Your task to perform on an android device: change text size in settings app Image 0: 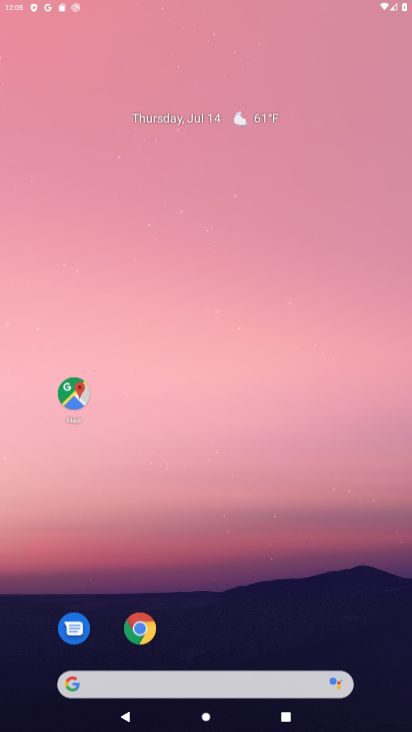
Step 0: click (118, 79)
Your task to perform on an android device: change text size in settings app Image 1: 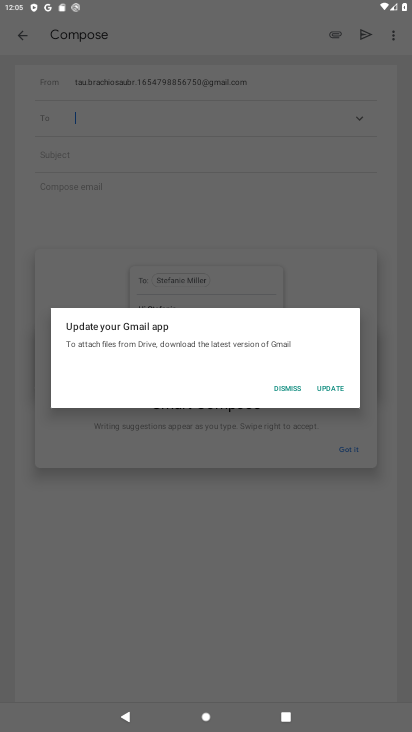
Step 1: press home button
Your task to perform on an android device: change text size in settings app Image 2: 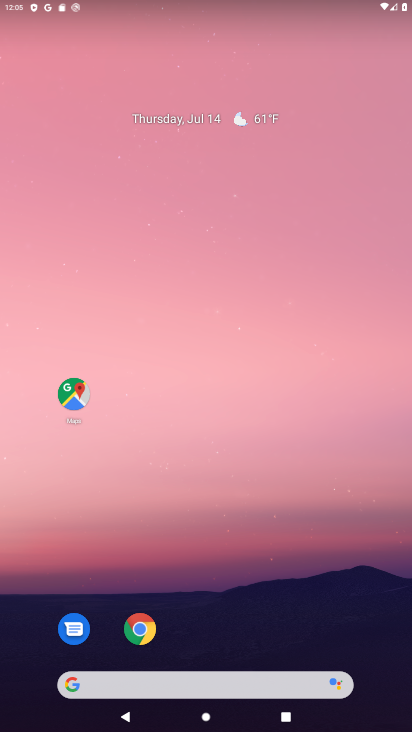
Step 2: drag from (227, 474) to (183, 113)
Your task to perform on an android device: change text size in settings app Image 3: 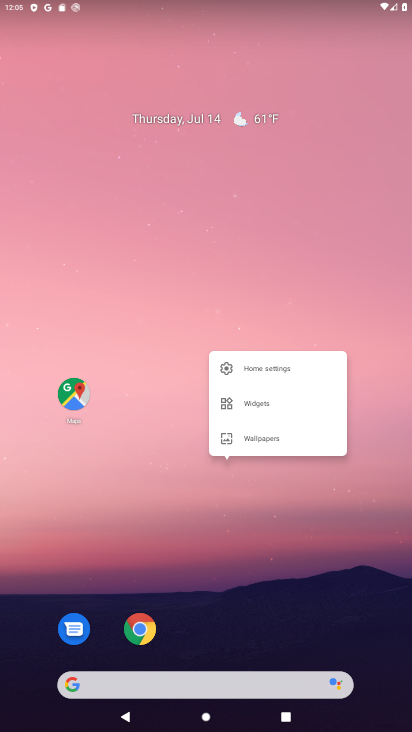
Step 3: drag from (210, 626) to (130, 11)
Your task to perform on an android device: change text size in settings app Image 4: 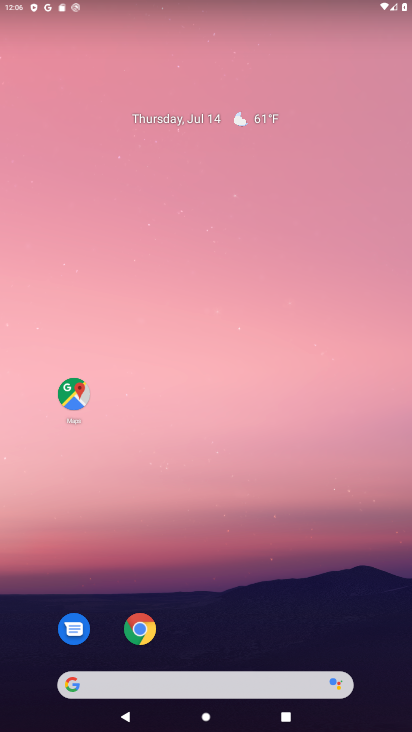
Step 4: drag from (235, 145) to (228, 53)
Your task to perform on an android device: change text size in settings app Image 5: 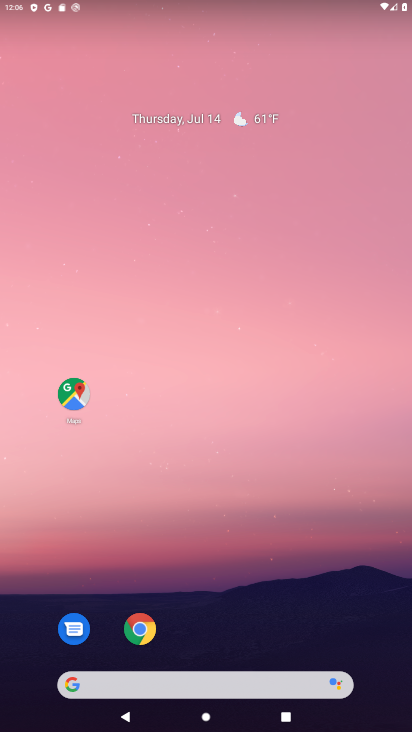
Step 5: drag from (197, 568) to (194, 124)
Your task to perform on an android device: change text size in settings app Image 6: 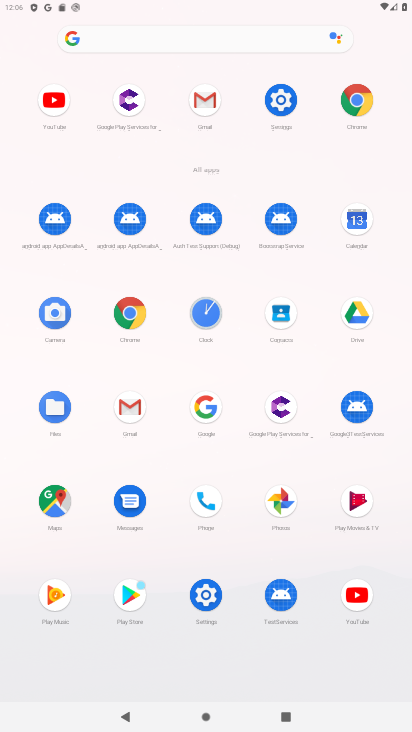
Step 6: click (283, 102)
Your task to perform on an android device: change text size in settings app Image 7: 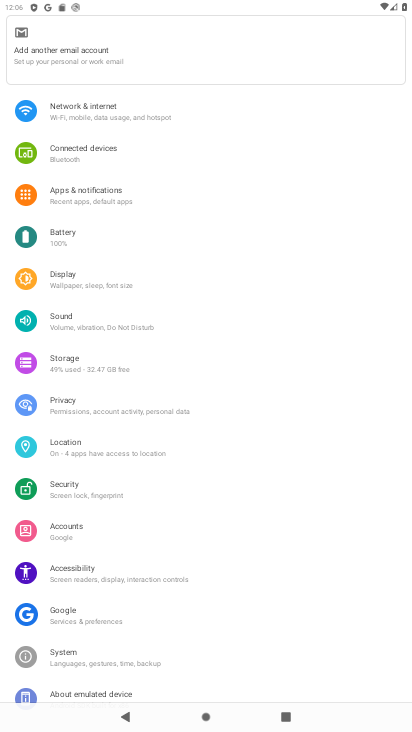
Step 7: click (107, 274)
Your task to perform on an android device: change text size in settings app Image 8: 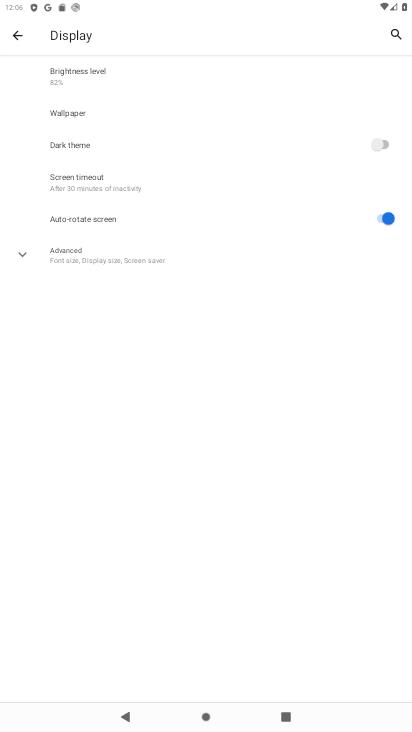
Step 8: click (107, 274)
Your task to perform on an android device: change text size in settings app Image 9: 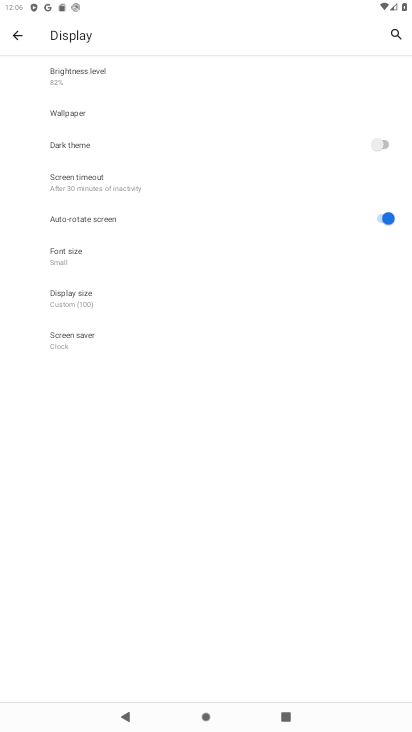
Step 9: click (77, 265)
Your task to perform on an android device: change text size in settings app Image 10: 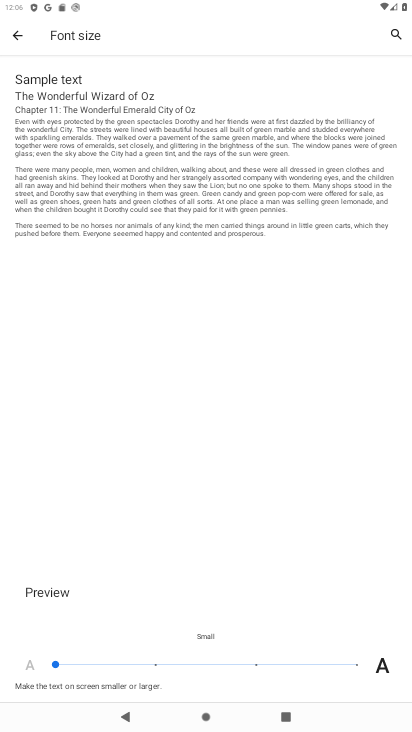
Step 10: click (353, 663)
Your task to perform on an android device: change text size in settings app Image 11: 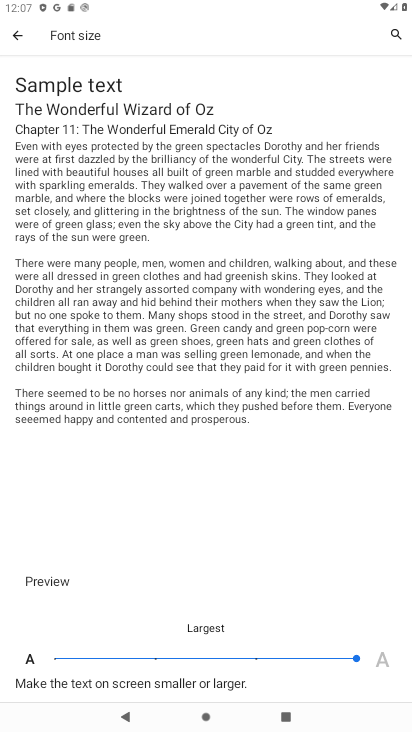
Step 11: task complete